Your task to perform on an android device: open sync settings in chrome Image 0: 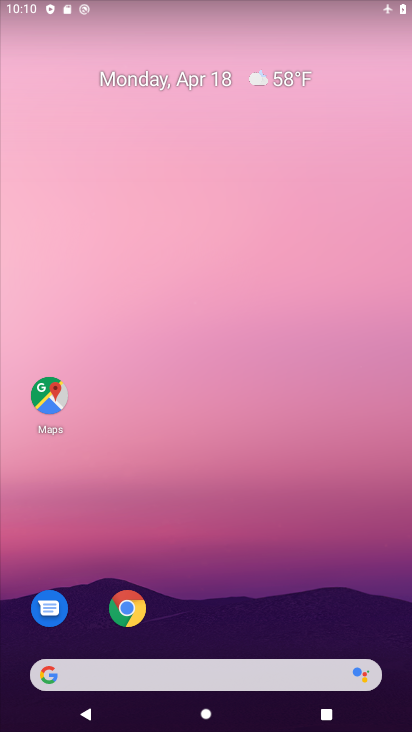
Step 0: drag from (340, 541) to (218, 54)
Your task to perform on an android device: open sync settings in chrome Image 1: 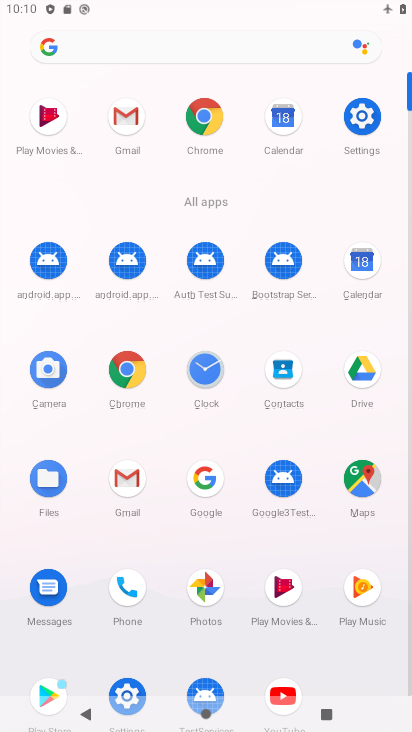
Step 1: click (206, 123)
Your task to perform on an android device: open sync settings in chrome Image 2: 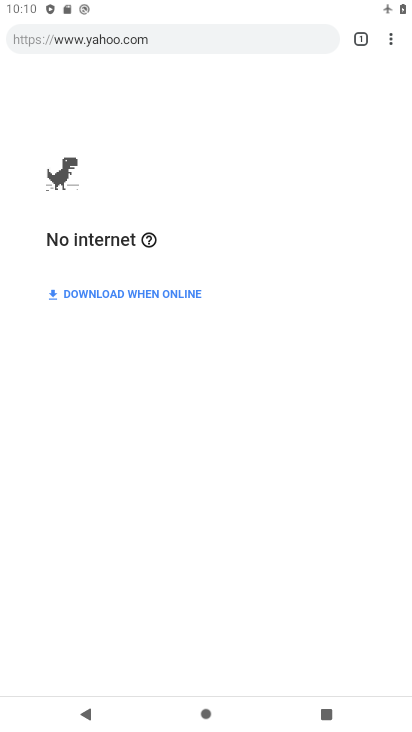
Step 2: click (390, 40)
Your task to perform on an android device: open sync settings in chrome Image 3: 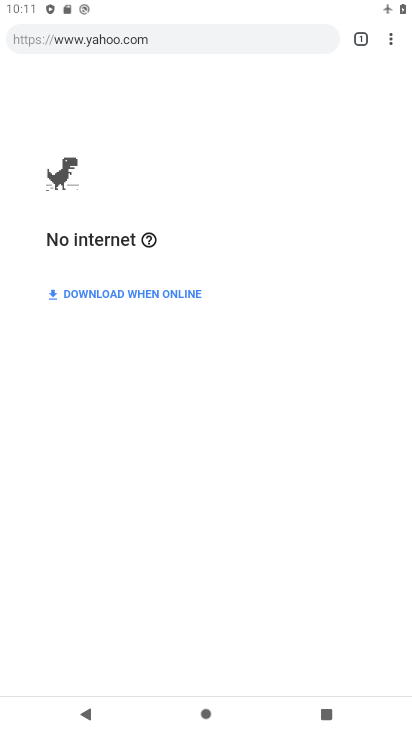
Step 3: drag from (390, 40) to (295, 435)
Your task to perform on an android device: open sync settings in chrome Image 4: 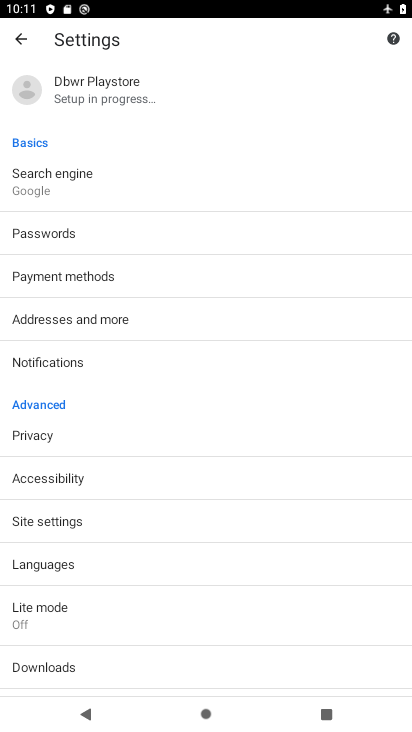
Step 4: click (173, 95)
Your task to perform on an android device: open sync settings in chrome Image 5: 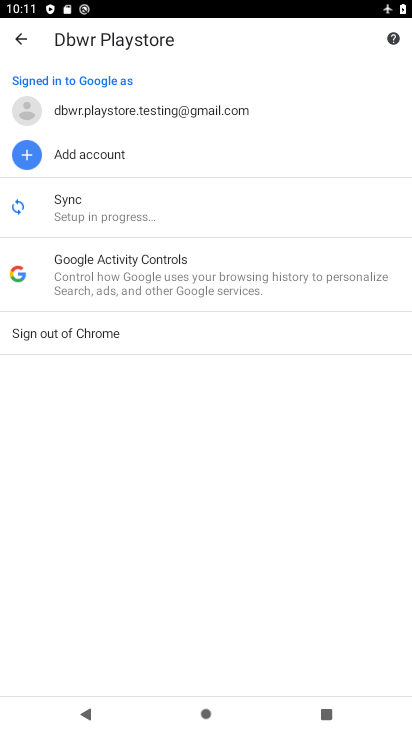
Step 5: click (186, 214)
Your task to perform on an android device: open sync settings in chrome Image 6: 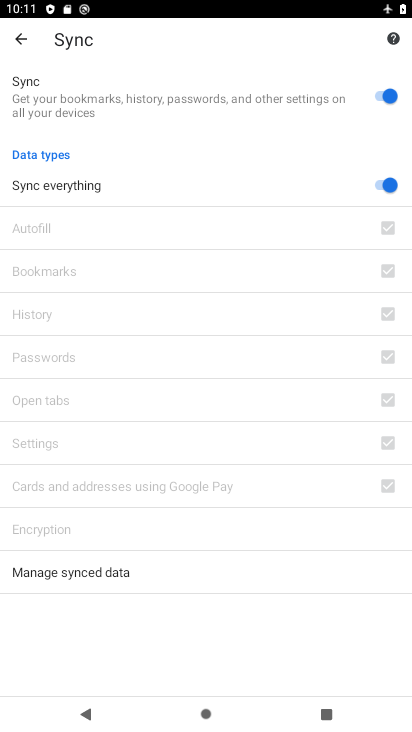
Step 6: task complete